Your task to perform on an android device: Open calendar and show me the second week of next month Image 0: 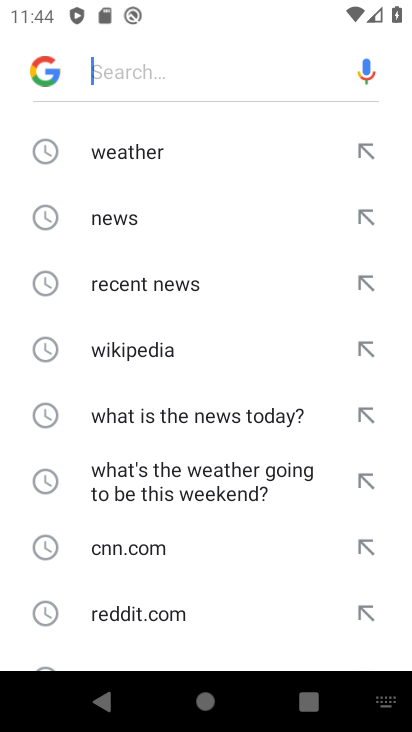
Step 0: press home button
Your task to perform on an android device: Open calendar and show me the second week of next month Image 1: 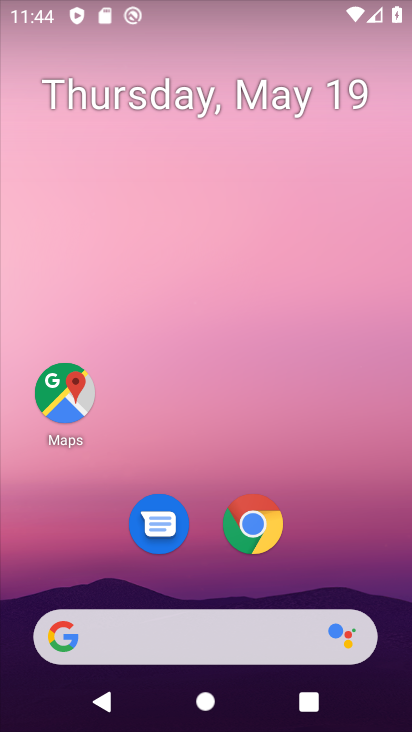
Step 1: drag from (338, 524) to (311, 85)
Your task to perform on an android device: Open calendar and show me the second week of next month Image 2: 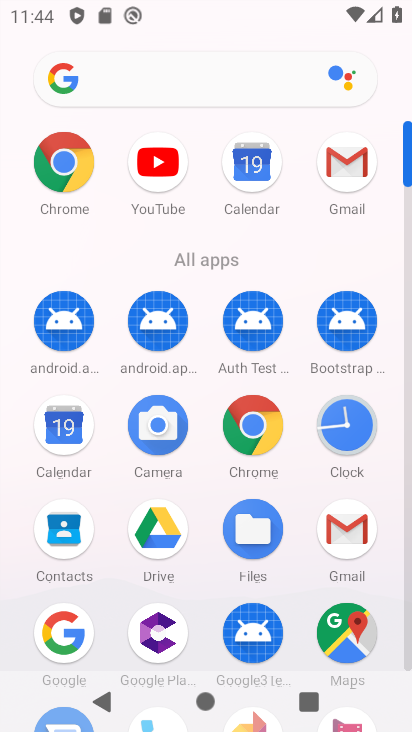
Step 2: click (260, 162)
Your task to perform on an android device: Open calendar and show me the second week of next month Image 3: 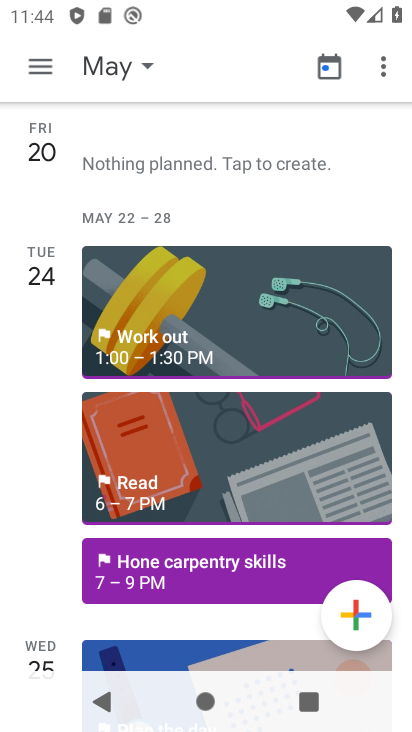
Step 3: click (45, 69)
Your task to perform on an android device: Open calendar and show me the second week of next month Image 4: 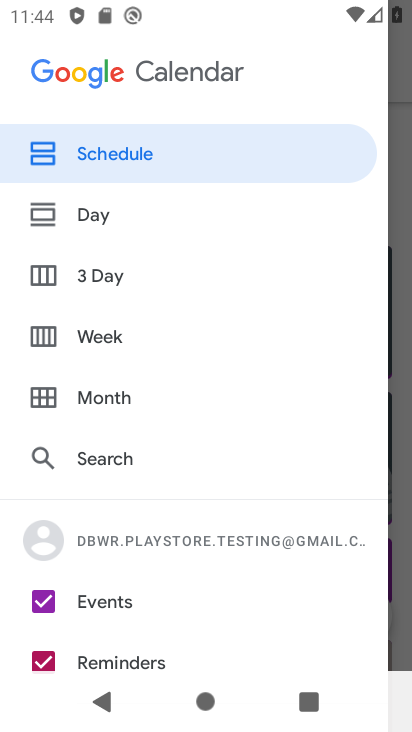
Step 4: click (53, 333)
Your task to perform on an android device: Open calendar and show me the second week of next month Image 5: 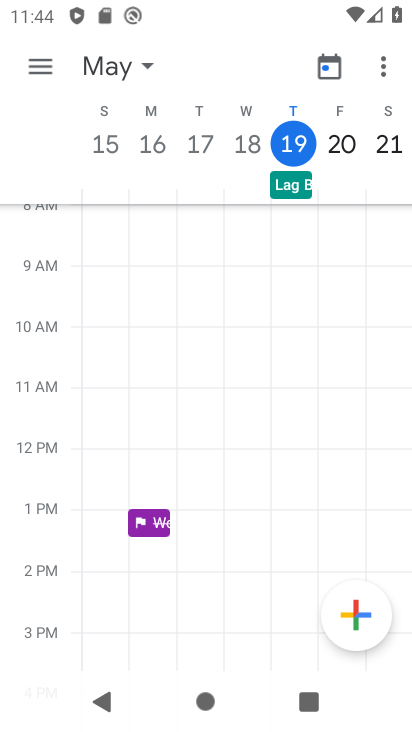
Step 5: task complete